Your task to perform on an android device: turn notification dots off Image 0: 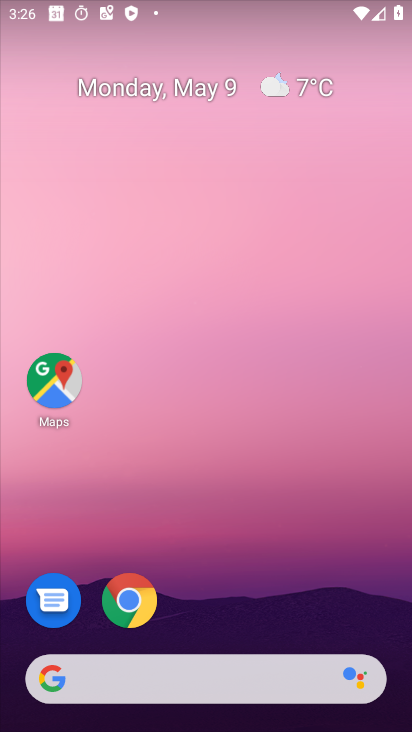
Step 0: drag from (291, 602) to (199, 117)
Your task to perform on an android device: turn notification dots off Image 1: 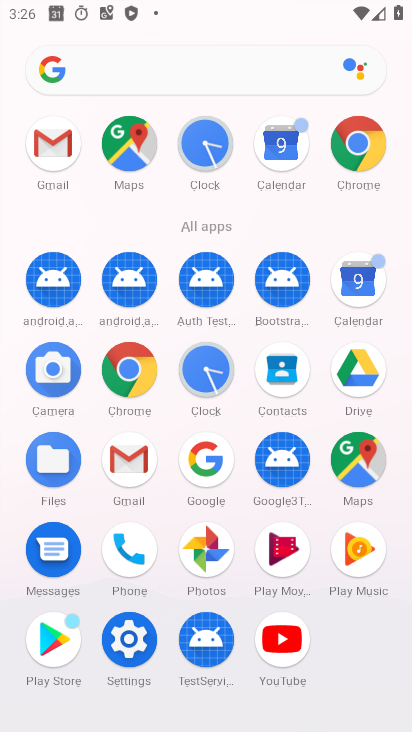
Step 1: click (138, 633)
Your task to perform on an android device: turn notification dots off Image 2: 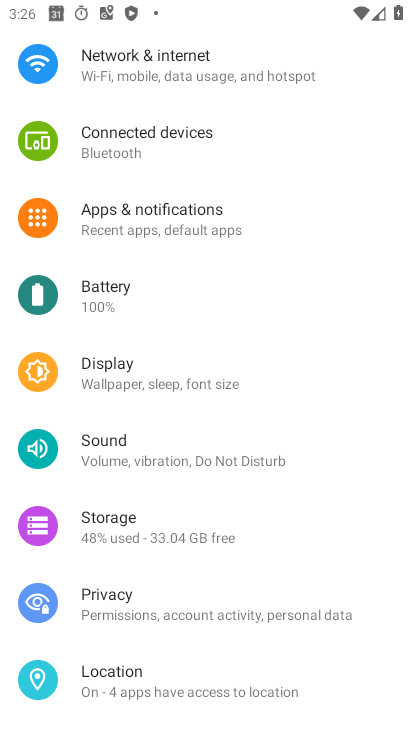
Step 2: click (183, 210)
Your task to perform on an android device: turn notification dots off Image 3: 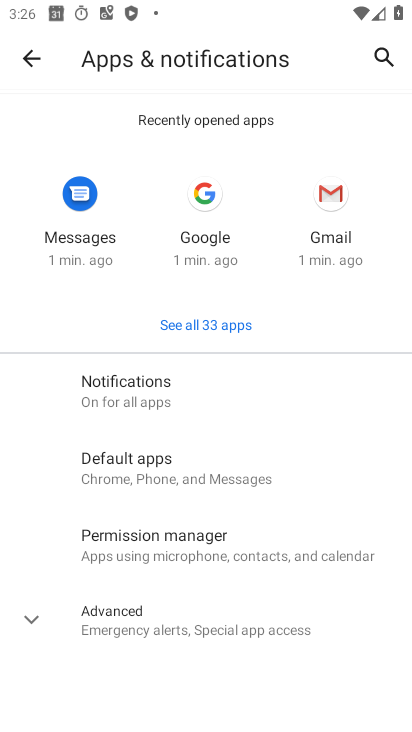
Step 3: click (144, 416)
Your task to perform on an android device: turn notification dots off Image 4: 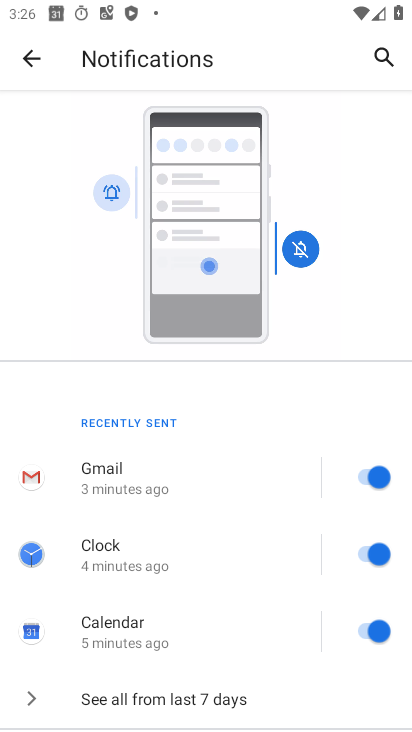
Step 4: drag from (263, 619) to (205, 15)
Your task to perform on an android device: turn notification dots off Image 5: 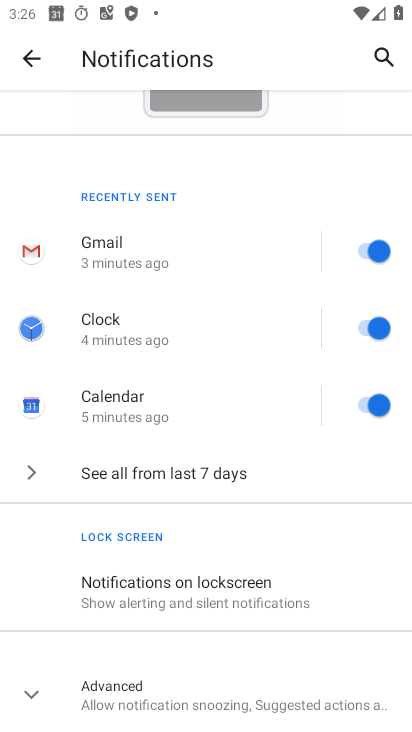
Step 5: click (187, 720)
Your task to perform on an android device: turn notification dots off Image 6: 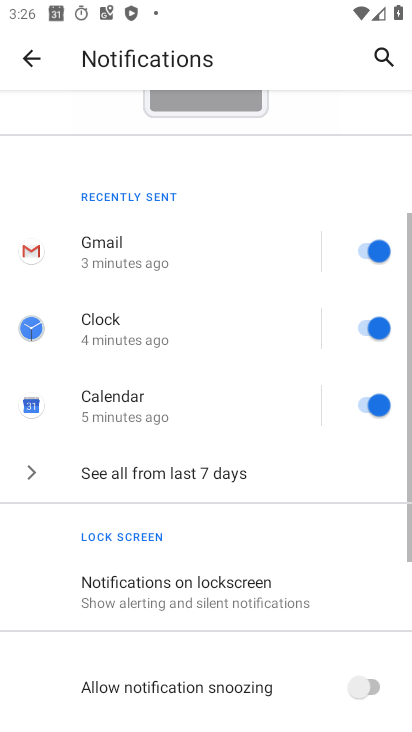
Step 6: drag from (262, 630) to (203, 72)
Your task to perform on an android device: turn notification dots off Image 7: 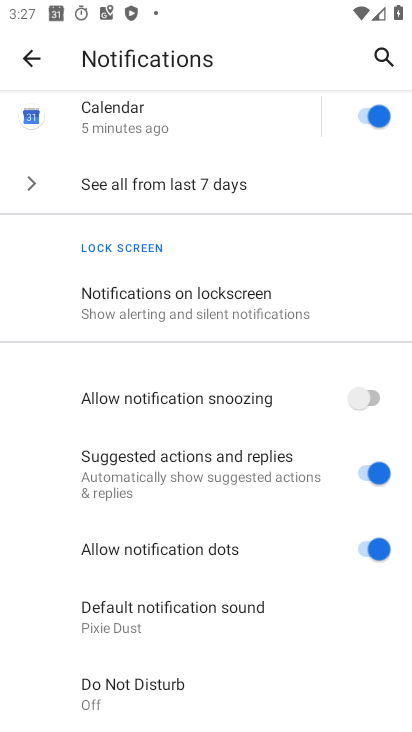
Step 7: click (384, 542)
Your task to perform on an android device: turn notification dots off Image 8: 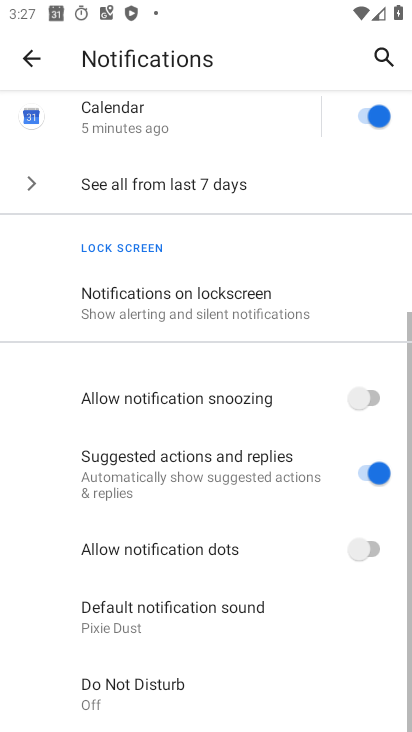
Step 8: task complete